Your task to perform on an android device: delete a single message in the gmail app Image 0: 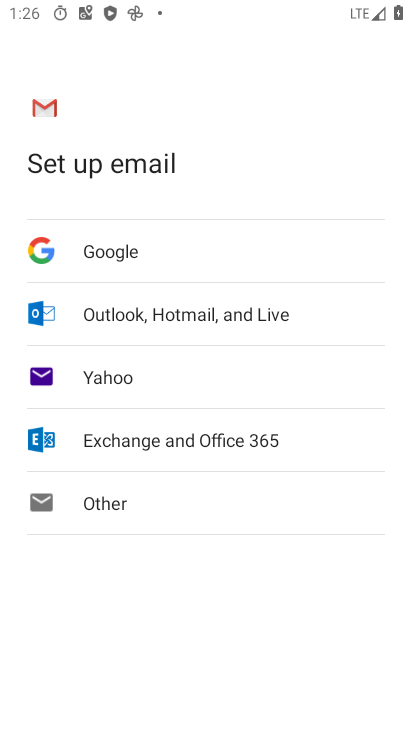
Step 0: press home button
Your task to perform on an android device: delete a single message in the gmail app Image 1: 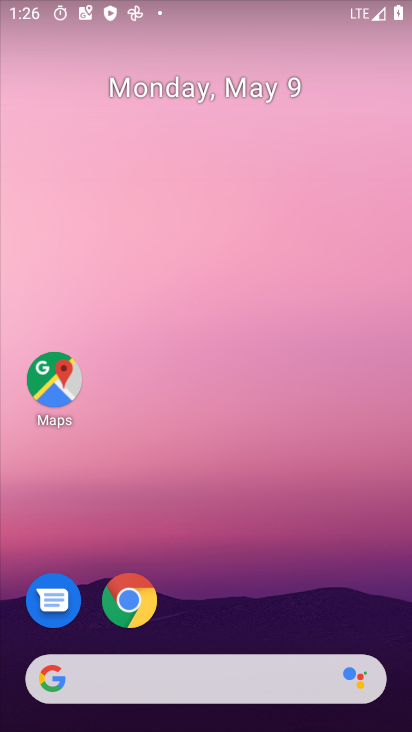
Step 1: drag from (316, 573) to (209, 158)
Your task to perform on an android device: delete a single message in the gmail app Image 2: 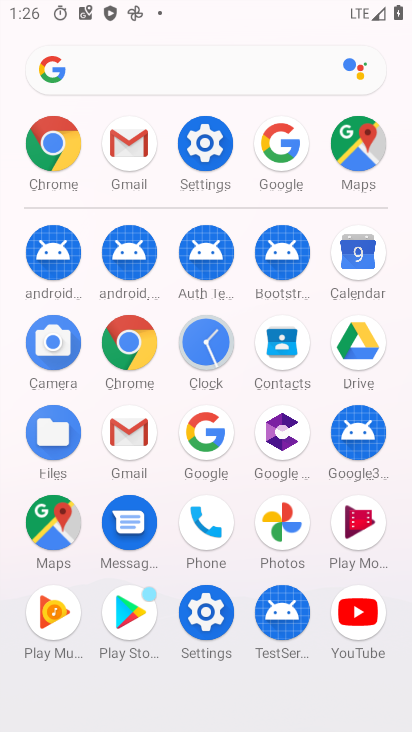
Step 2: click (131, 443)
Your task to perform on an android device: delete a single message in the gmail app Image 3: 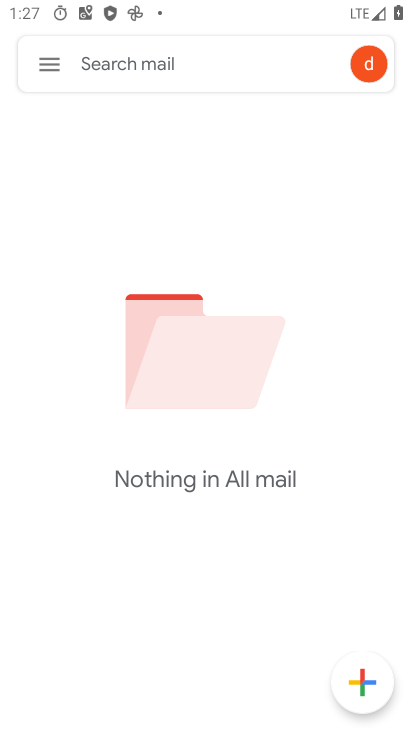
Step 3: click (54, 83)
Your task to perform on an android device: delete a single message in the gmail app Image 4: 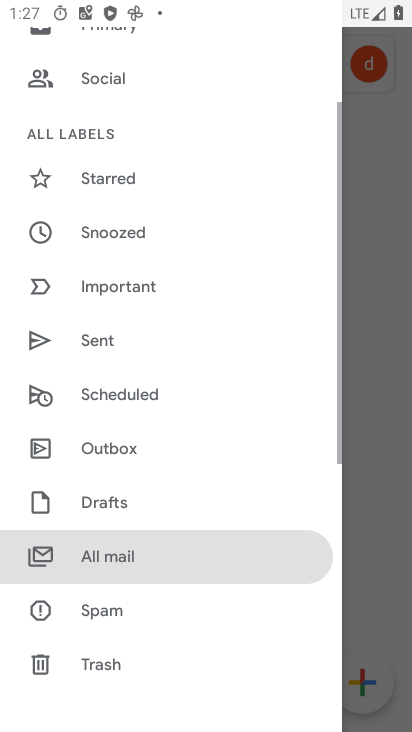
Step 4: drag from (177, 574) to (178, 273)
Your task to perform on an android device: delete a single message in the gmail app Image 5: 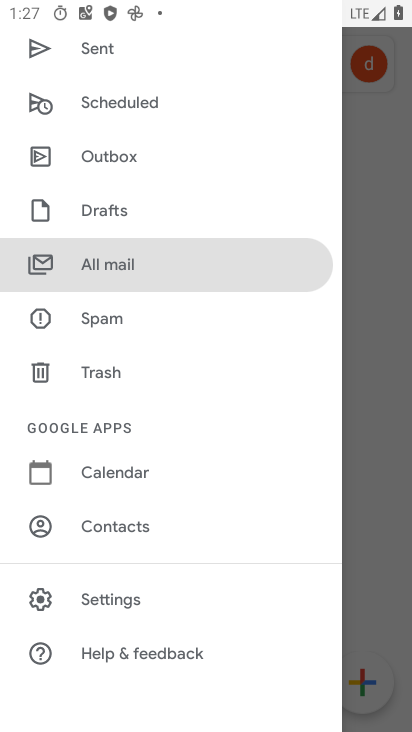
Step 5: drag from (133, 305) to (252, 712)
Your task to perform on an android device: delete a single message in the gmail app Image 6: 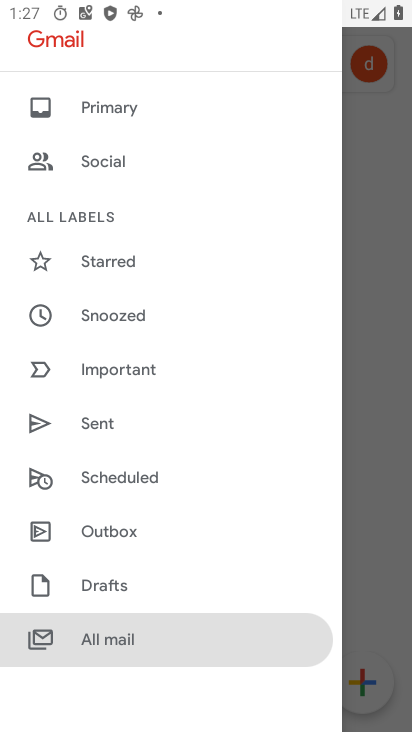
Step 6: click (131, 116)
Your task to perform on an android device: delete a single message in the gmail app Image 7: 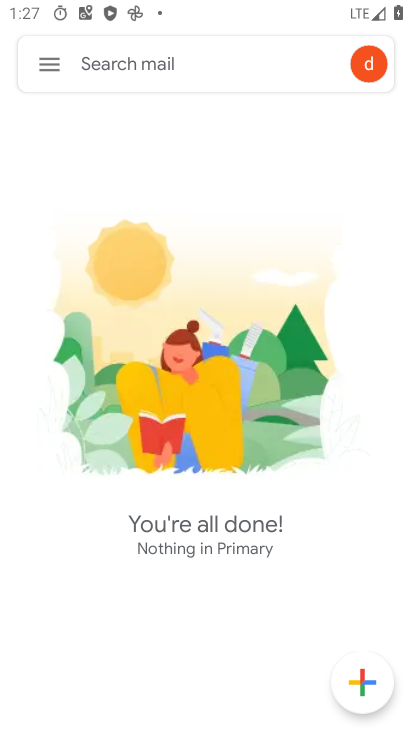
Step 7: task complete